Your task to perform on an android device: refresh tabs in the chrome app Image 0: 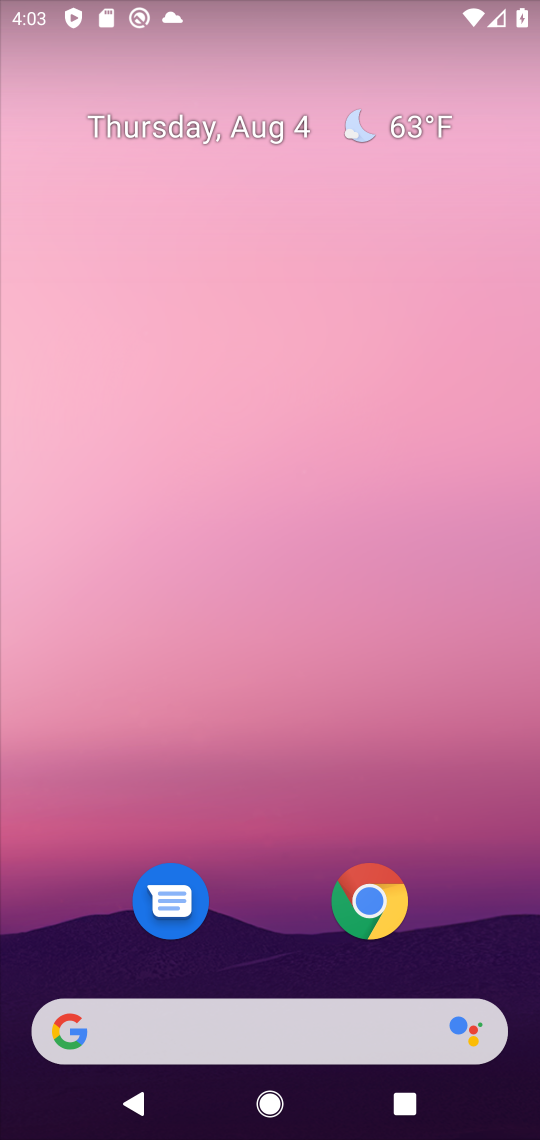
Step 0: press home button
Your task to perform on an android device: refresh tabs in the chrome app Image 1: 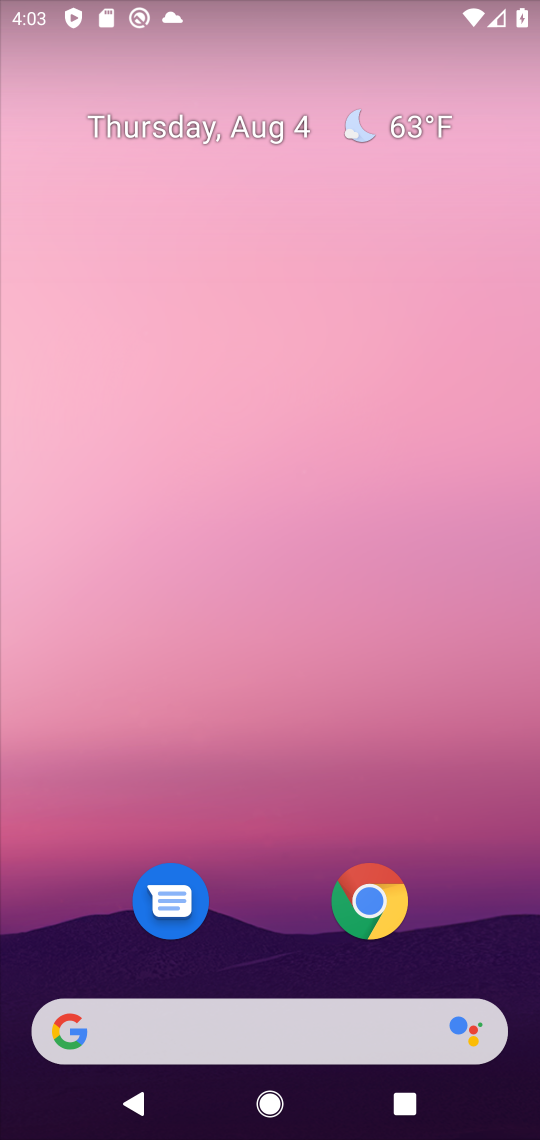
Step 1: drag from (272, 919) to (324, 39)
Your task to perform on an android device: refresh tabs in the chrome app Image 2: 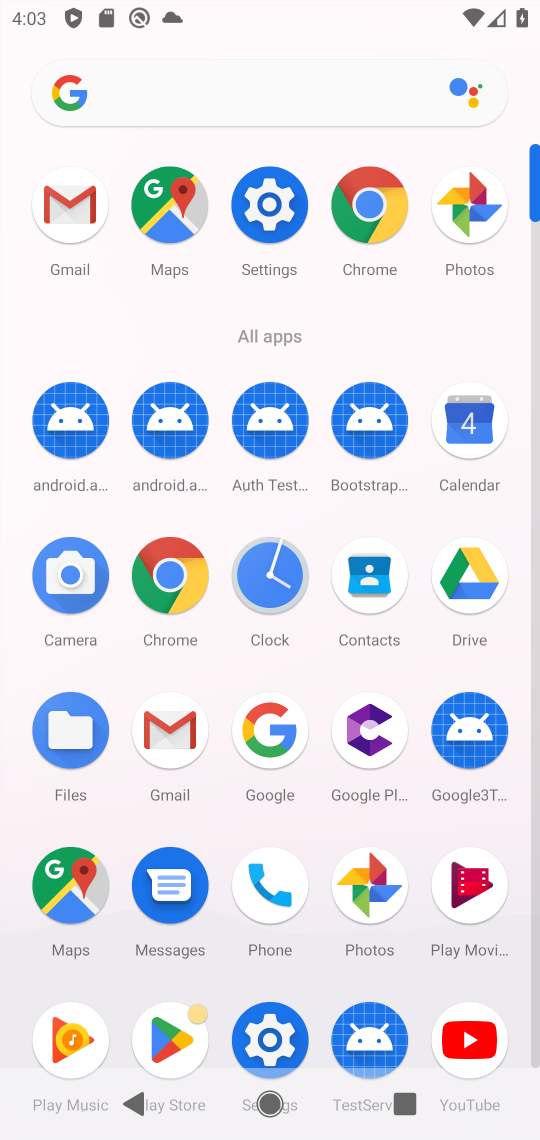
Step 2: click (359, 193)
Your task to perform on an android device: refresh tabs in the chrome app Image 3: 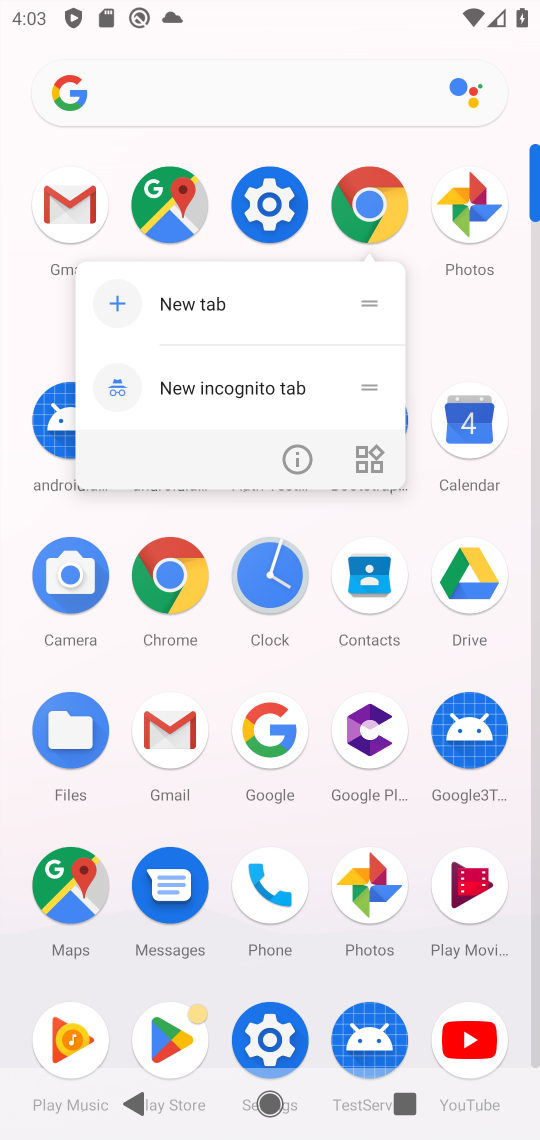
Step 3: click (378, 186)
Your task to perform on an android device: refresh tabs in the chrome app Image 4: 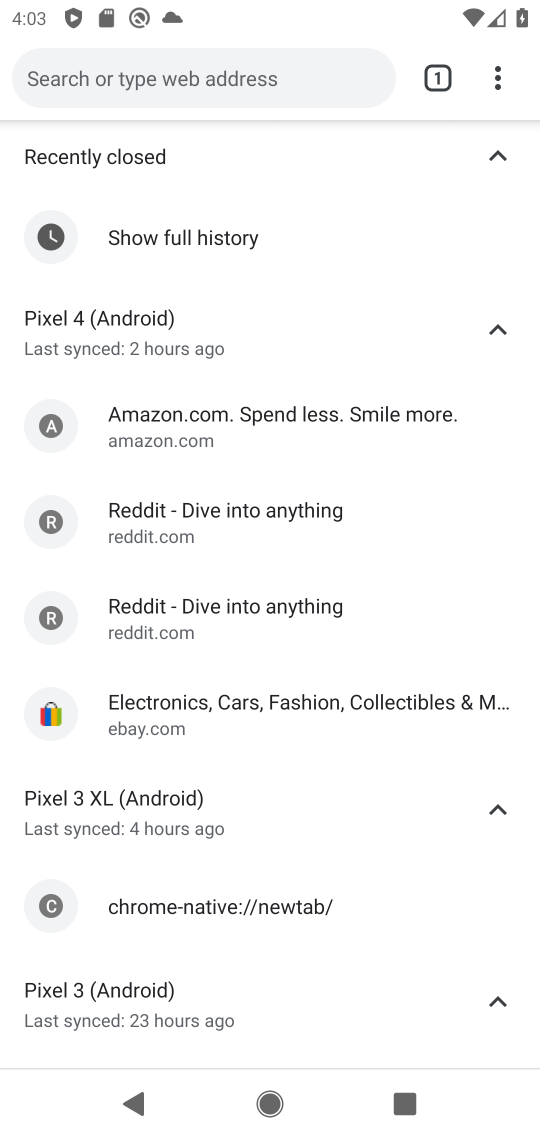
Step 4: click (504, 80)
Your task to perform on an android device: refresh tabs in the chrome app Image 5: 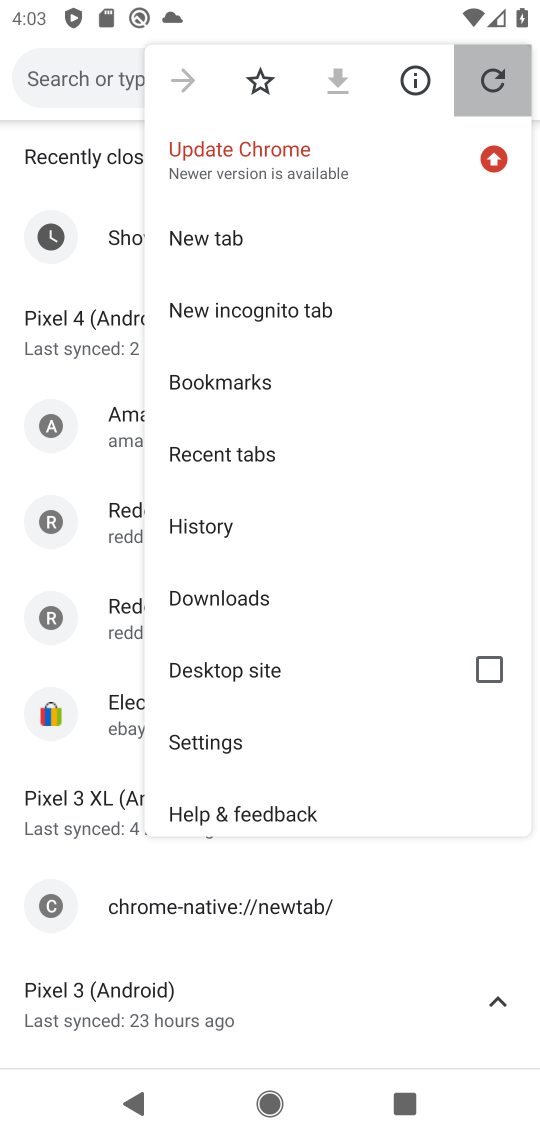
Step 5: click (504, 78)
Your task to perform on an android device: refresh tabs in the chrome app Image 6: 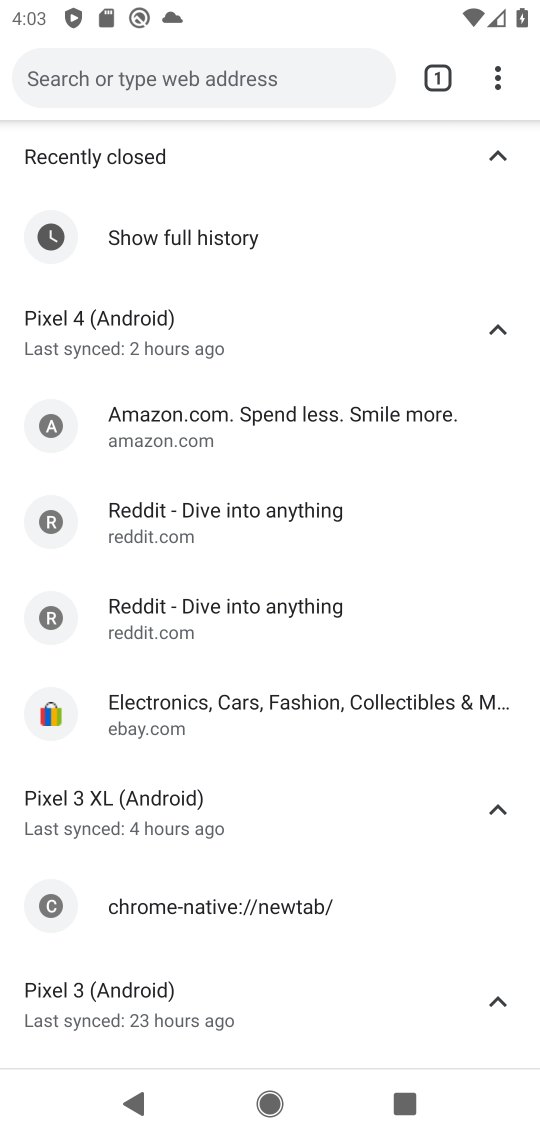
Step 6: task complete